Your task to perform on an android device: Open calendar and show me the second week of next month Image 0: 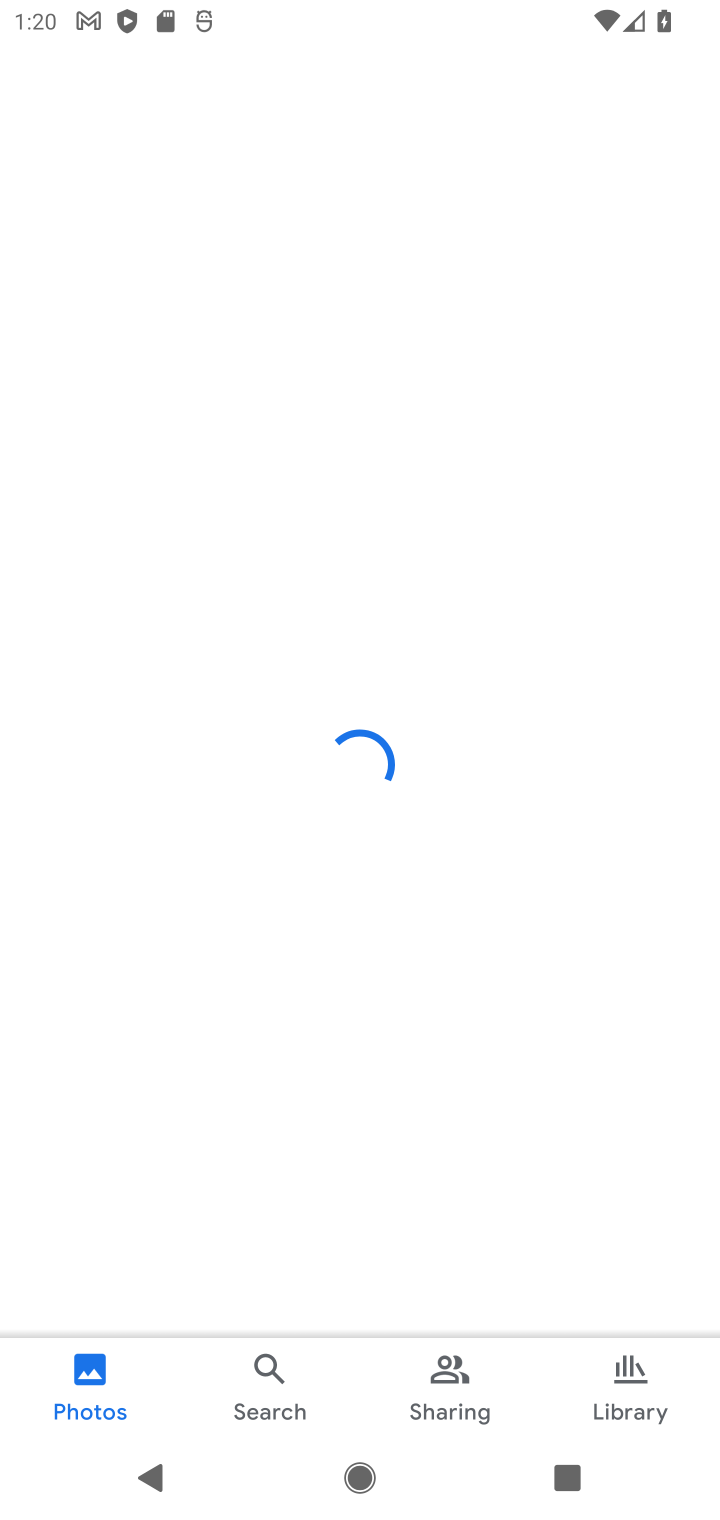
Step 0: press home button
Your task to perform on an android device: Open calendar and show me the second week of next month Image 1: 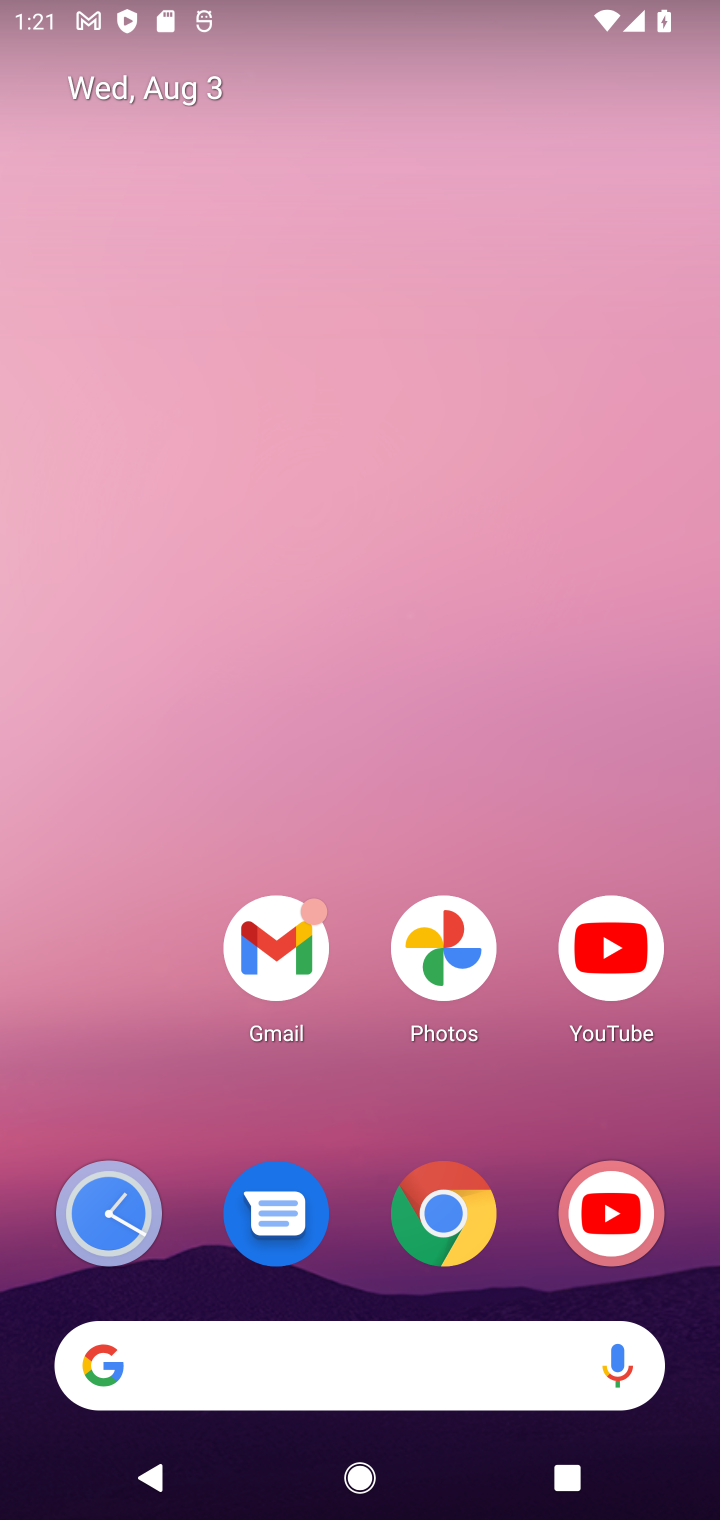
Step 1: drag from (525, 1111) to (507, 3)
Your task to perform on an android device: Open calendar and show me the second week of next month Image 2: 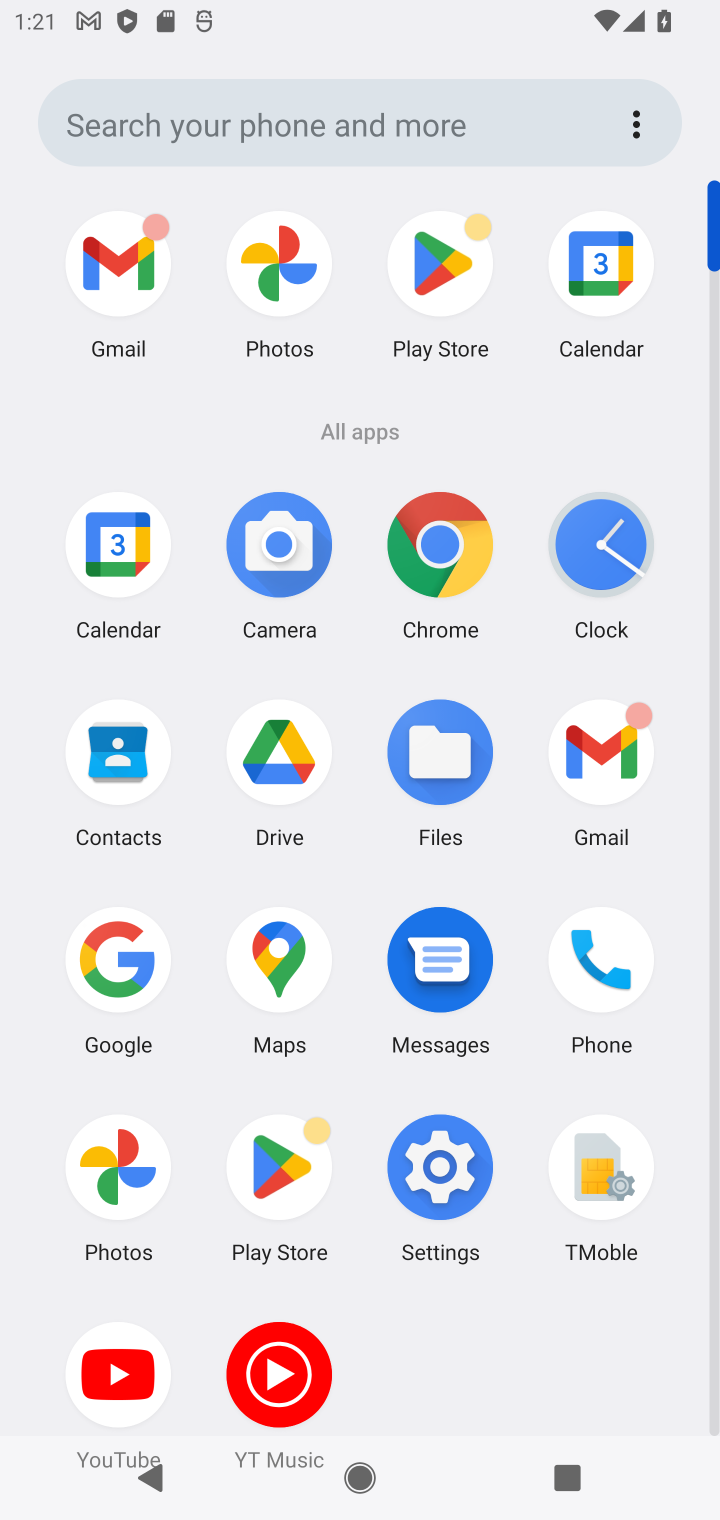
Step 2: click (114, 574)
Your task to perform on an android device: Open calendar and show me the second week of next month Image 3: 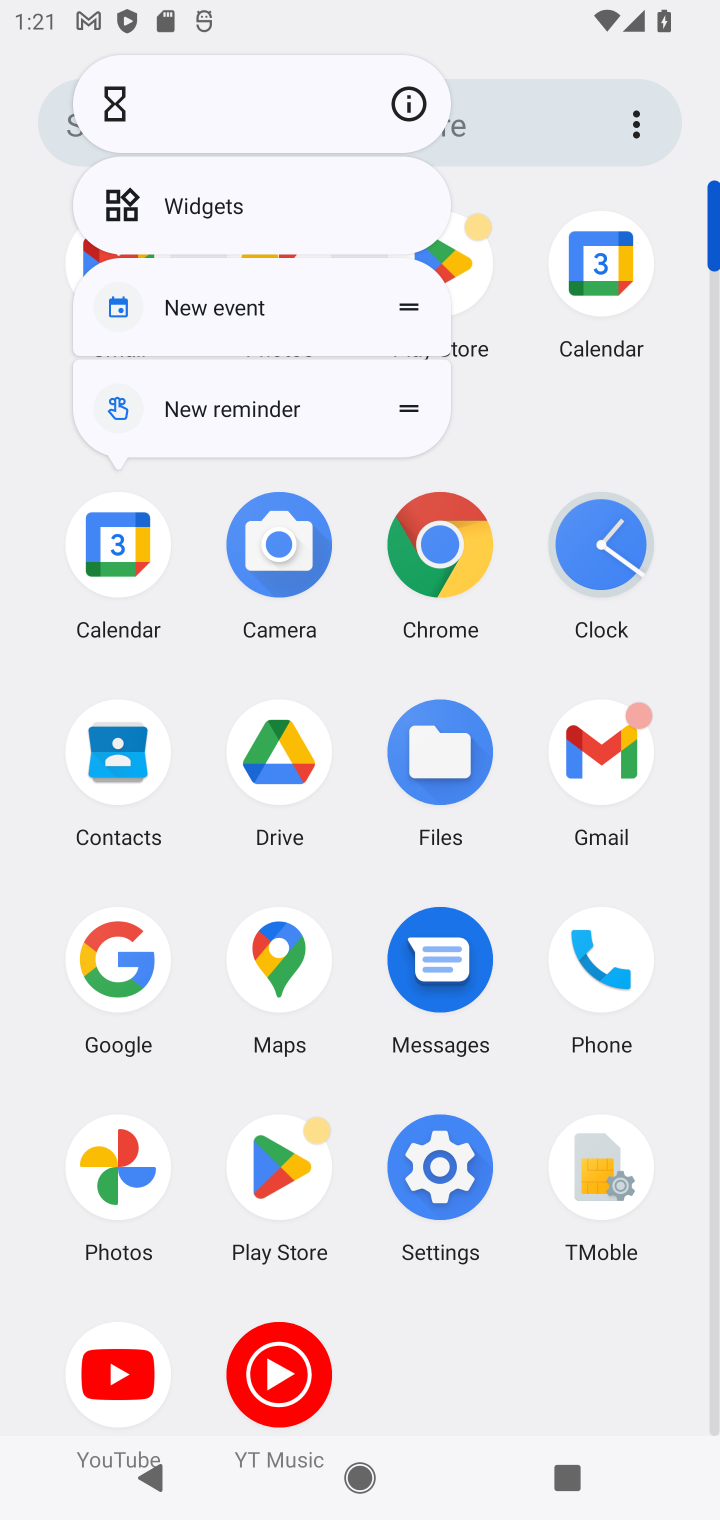
Step 3: click (107, 571)
Your task to perform on an android device: Open calendar and show me the second week of next month Image 4: 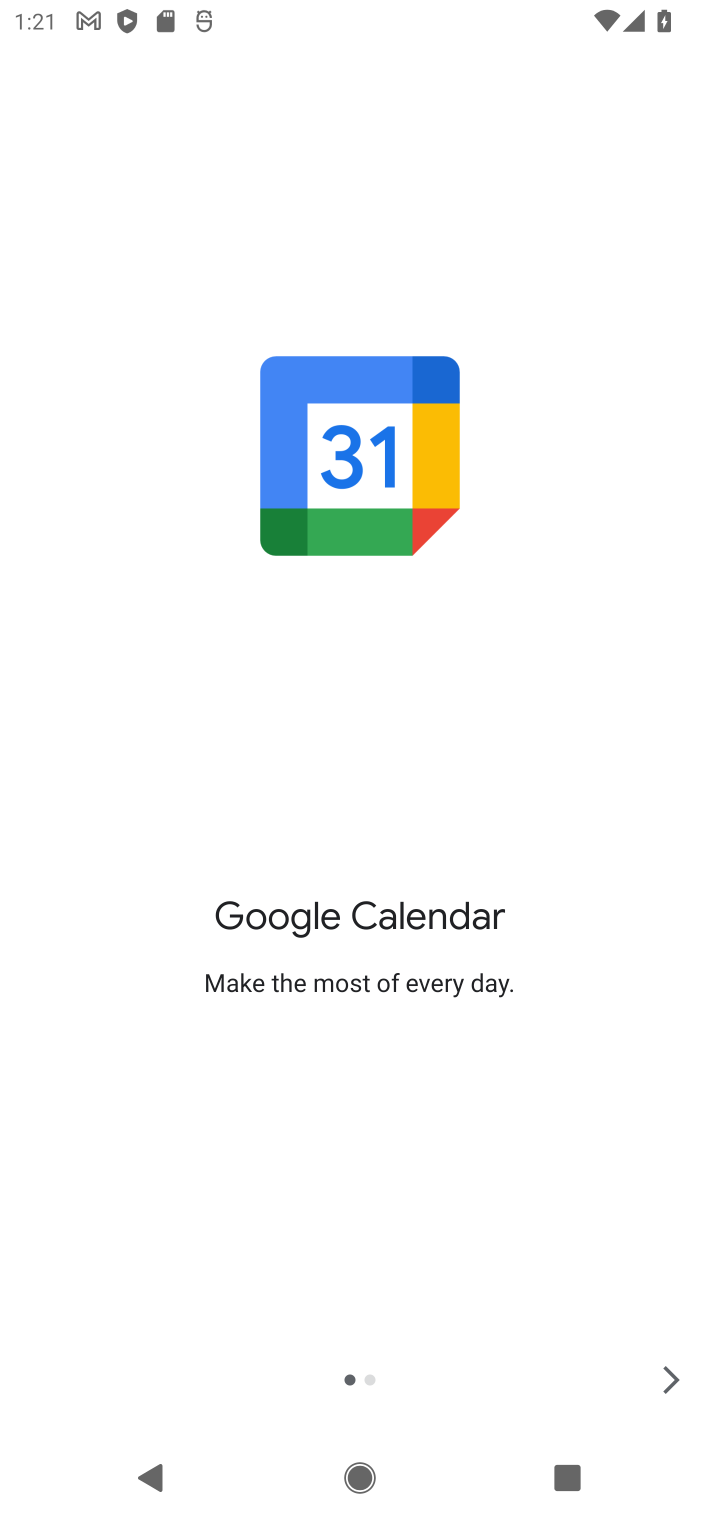
Step 4: click (663, 1374)
Your task to perform on an android device: Open calendar and show me the second week of next month Image 5: 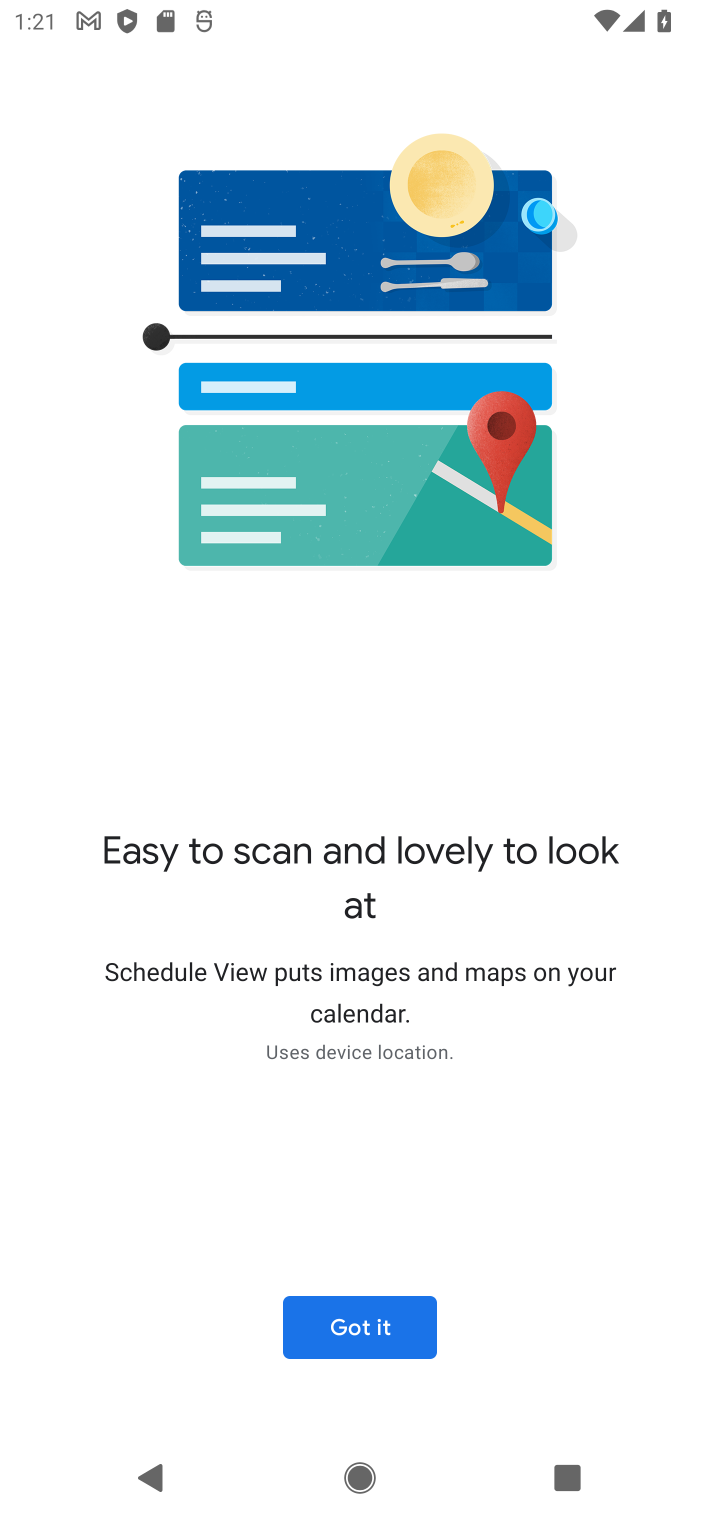
Step 5: click (643, 1368)
Your task to perform on an android device: Open calendar and show me the second week of next month Image 6: 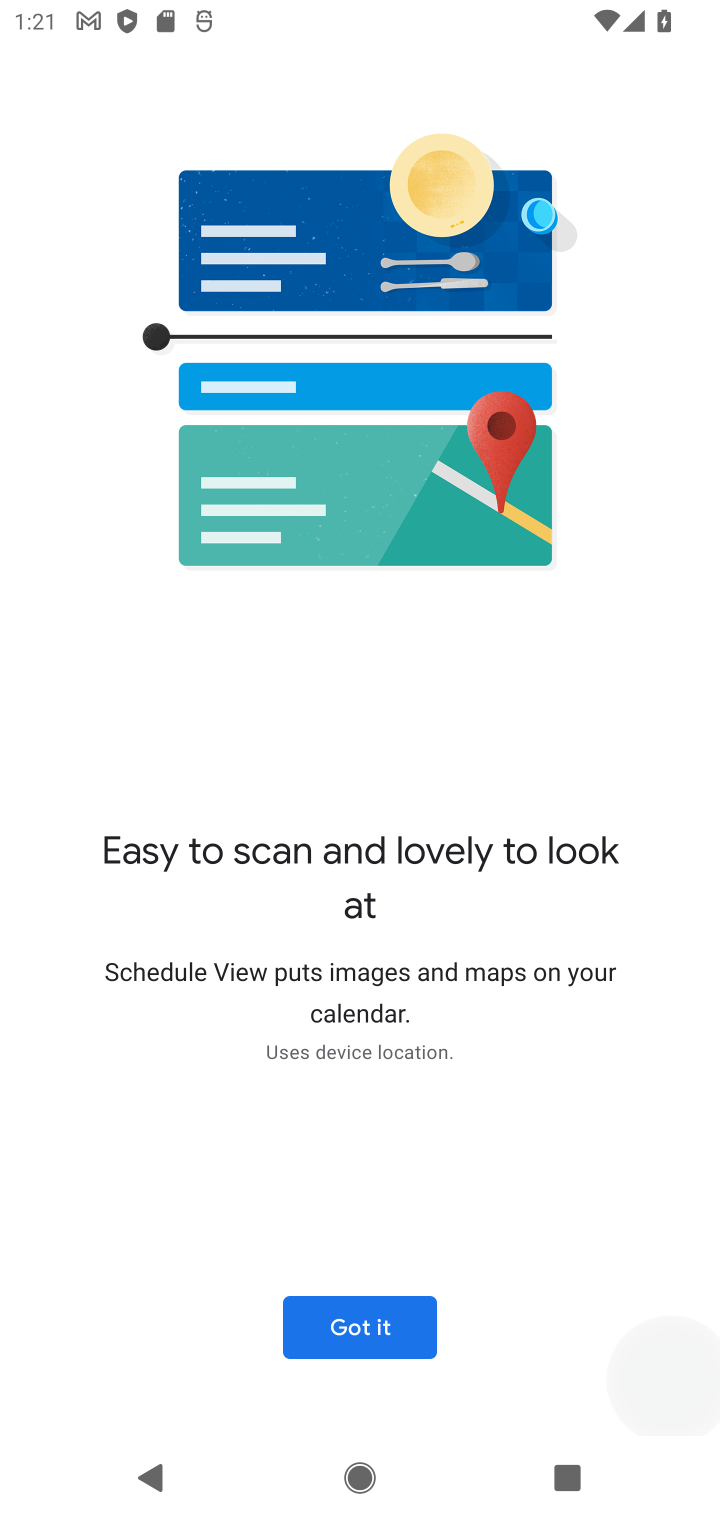
Step 6: click (403, 1329)
Your task to perform on an android device: Open calendar and show me the second week of next month Image 7: 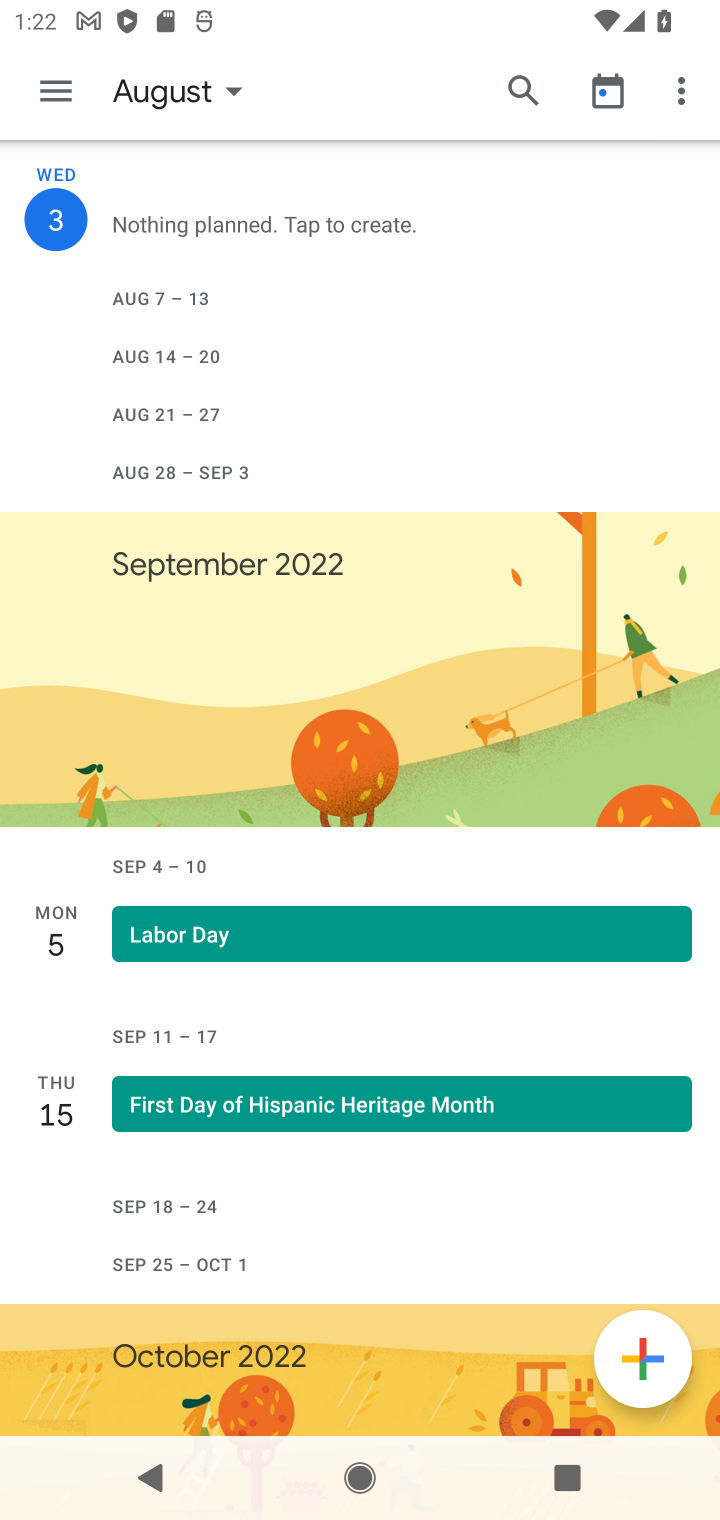
Step 7: click (216, 72)
Your task to perform on an android device: Open calendar and show me the second week of next month Image 8: 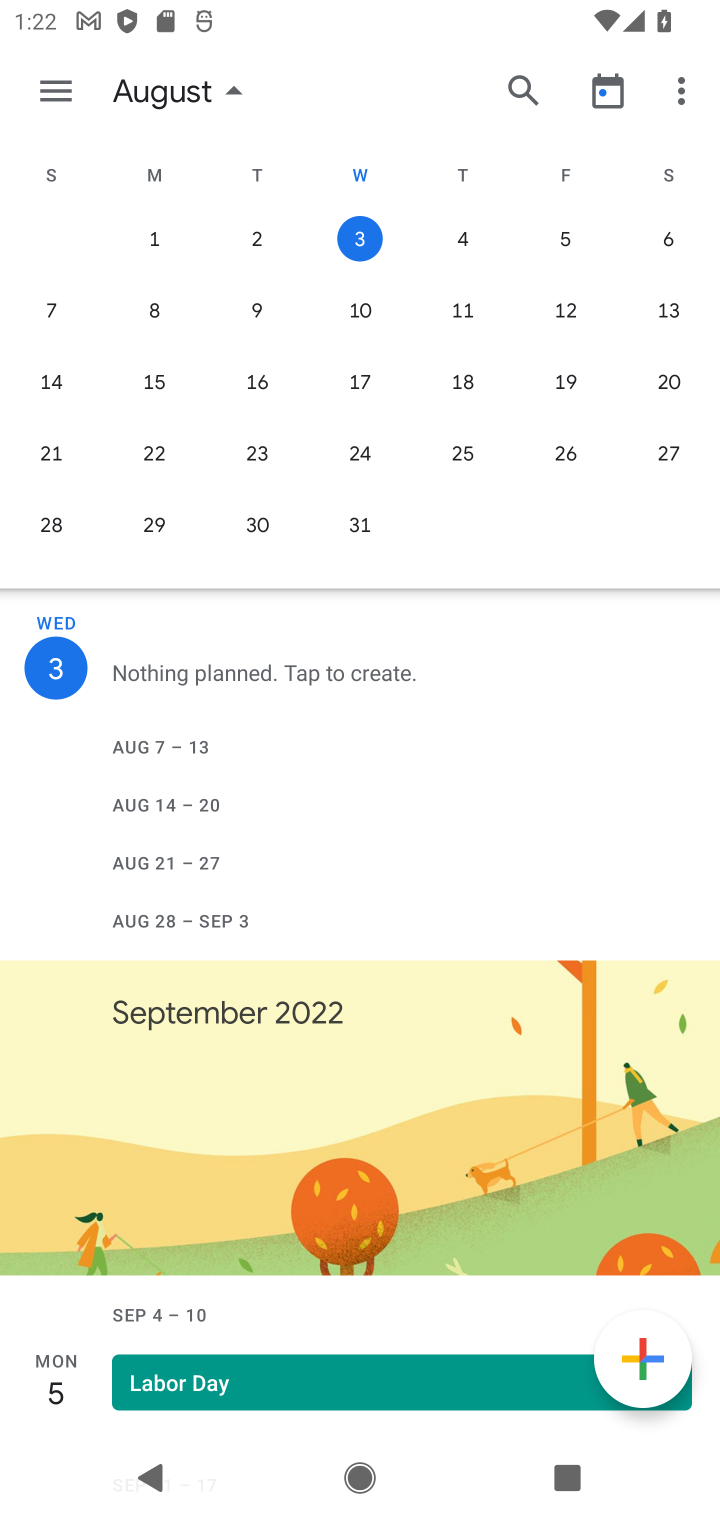
Step 8: drag from (560, 396) to (11, 491)
Your task to perform on an android device: Open calendar and show me the second week of next month Image 9: 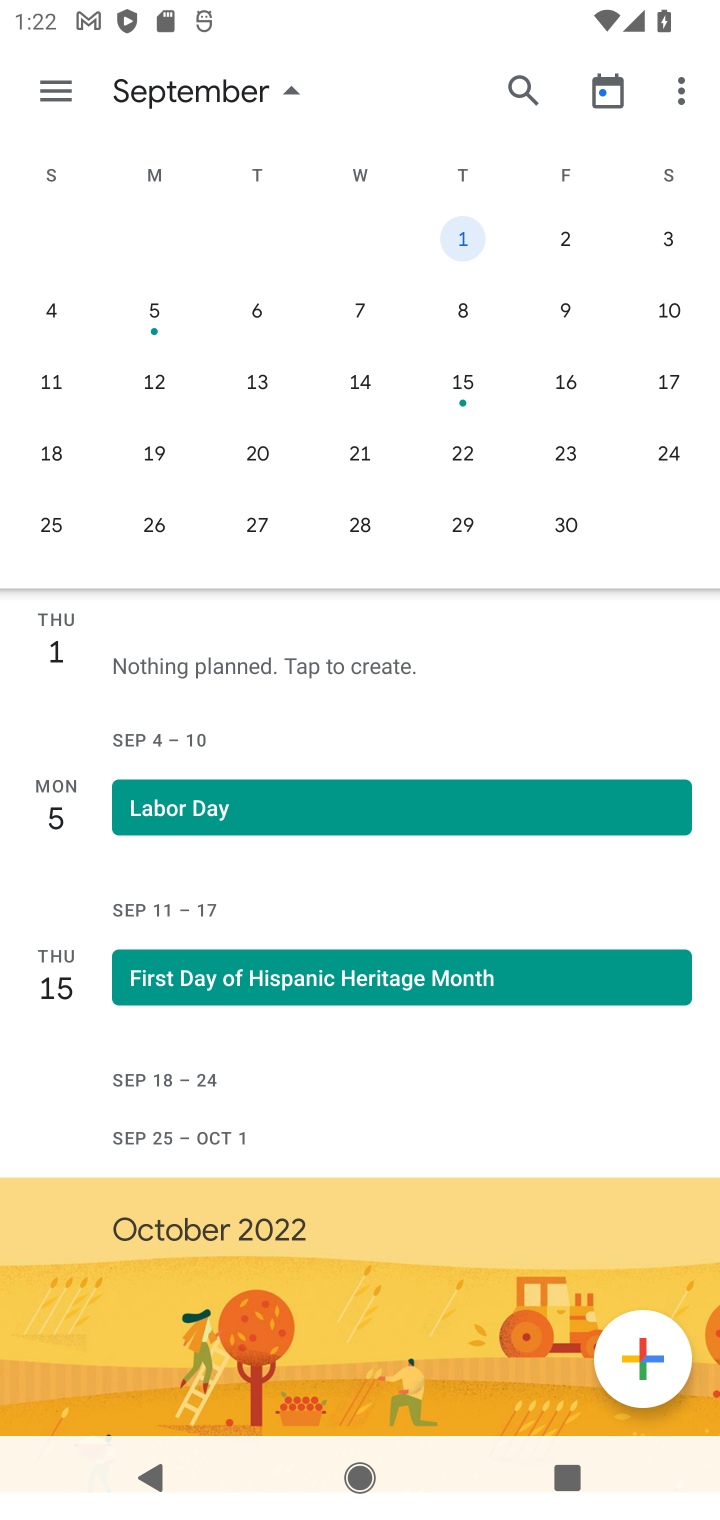
Step 9: click (362, 296)
Your task to perform on an android device: Open calendar and show me the second week of next month Image 10: 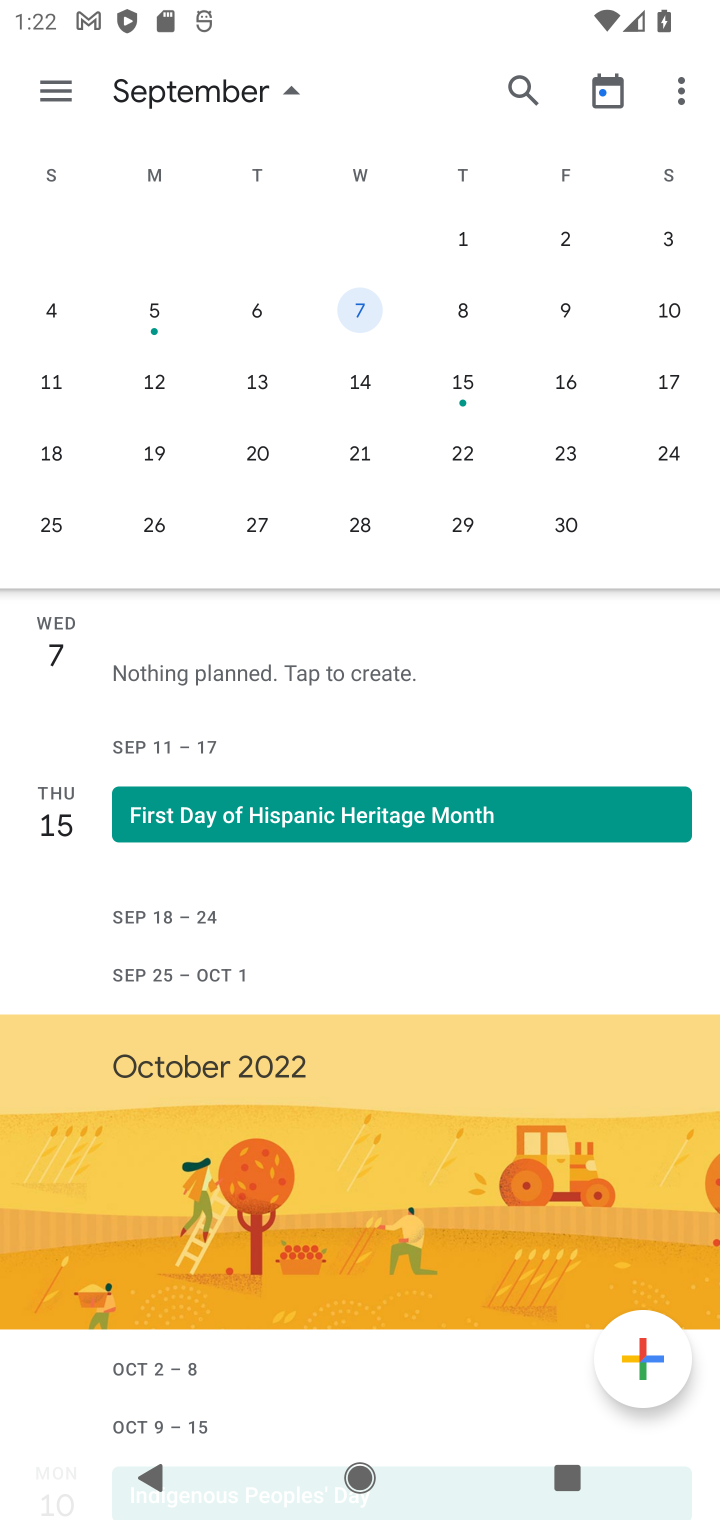
Step 10: click (61, 84)
Your task to perform on an android device: Open calendar and show me the second week of next month Image 11: 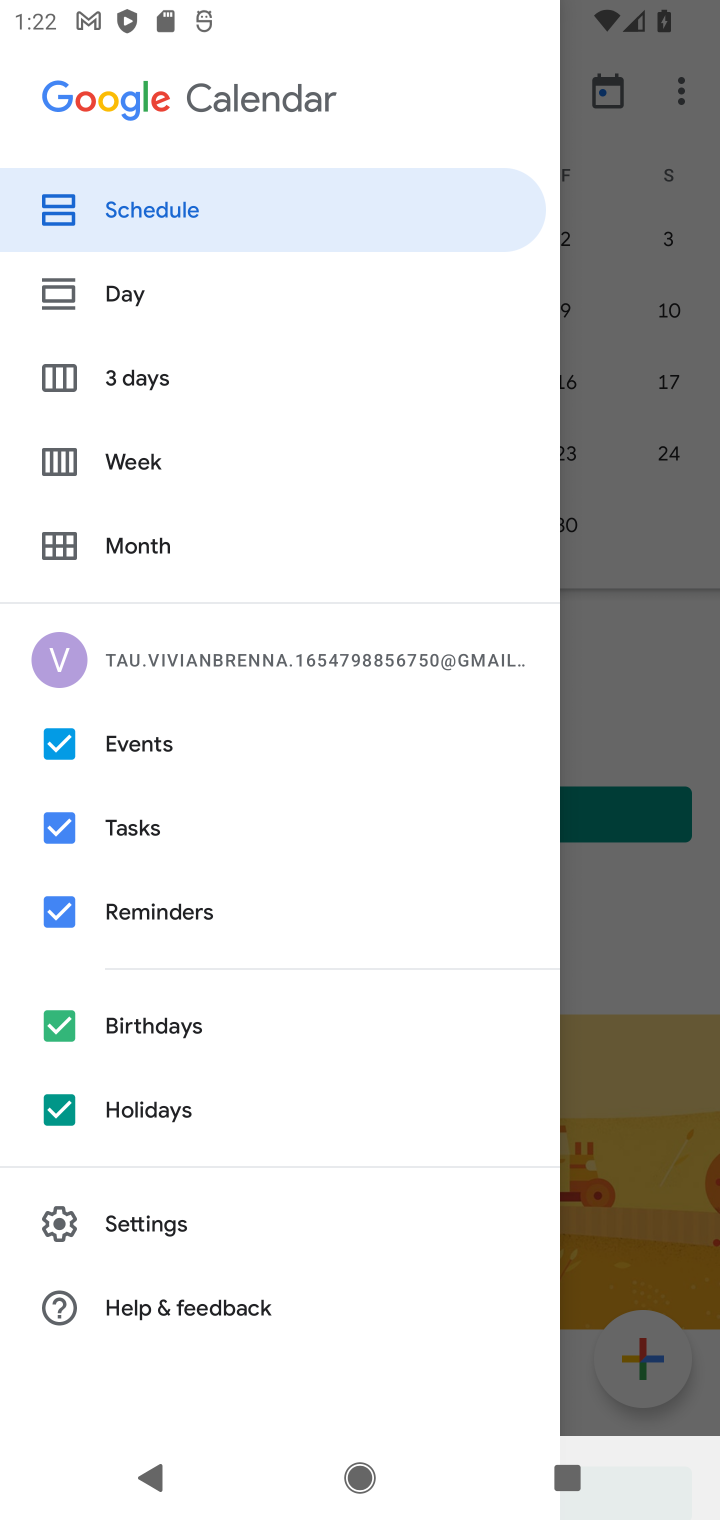
Step 11: click (136, 468)
Your task to perform on an android device: Open calendar and show me the second week of next month Image 12: 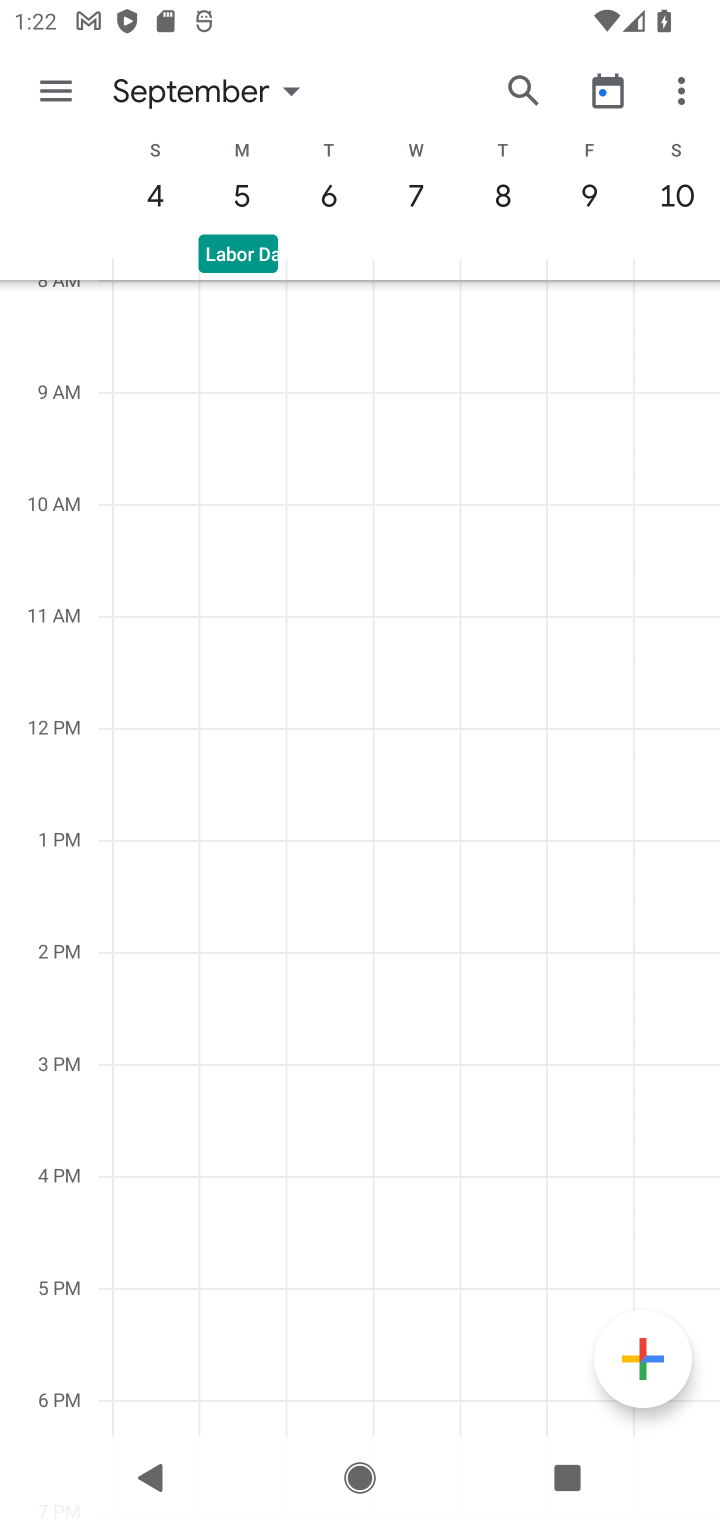
Step 12: task complete